Your task to perform on an android device: delete a single message in the gmail app Image 0: 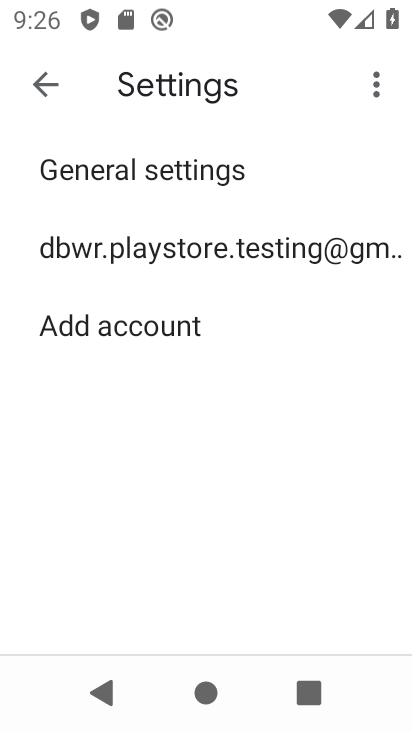
Step 0: press home button
Your task to perform on an android device: delete a single message in the gmail app Image 1: 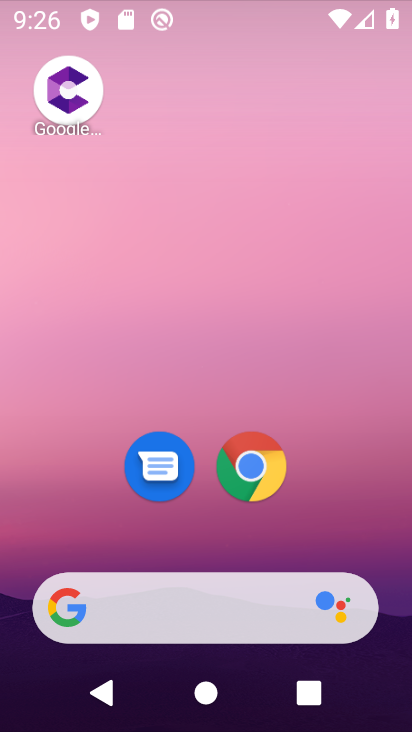
Step 1: drag from (387, 652) to (272, 61)
Your task to perform on an android device: delete a single message in the gmail app Image 2: 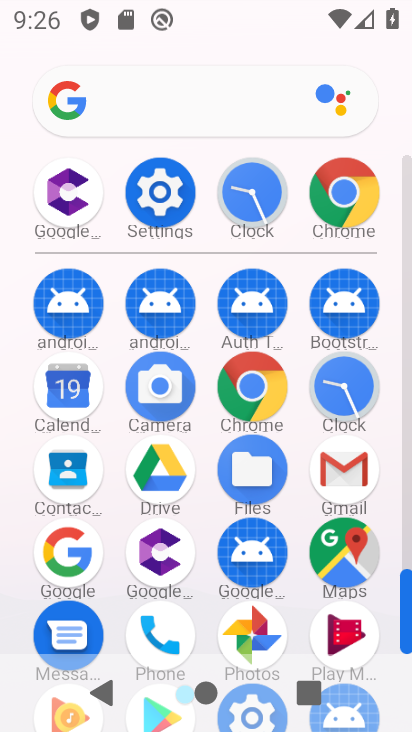
Step 2: click (370, 486)
Your task to perform on an android device: delete a single message in the gmail app Image 3: 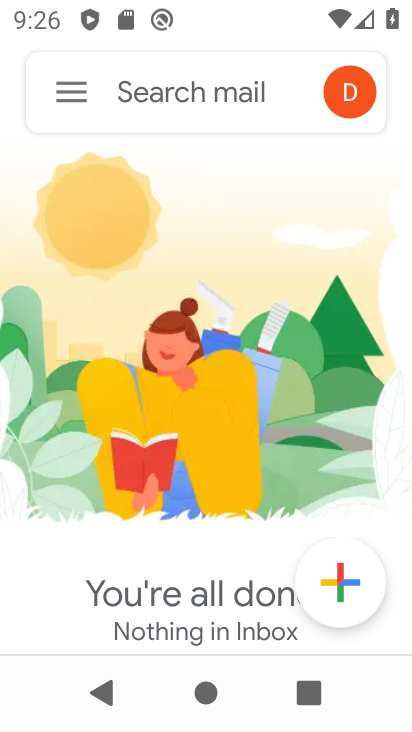
Step 3: task complete